Your task to perform on an android device: Go to Maps Image 0: 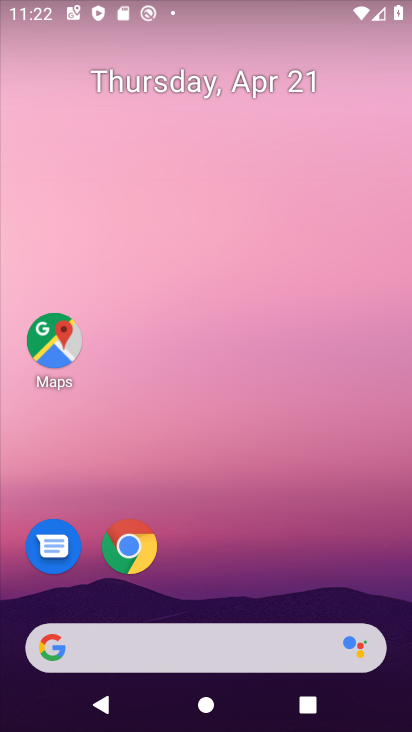
Step 0: click (54, 347)
Your task to perform on an android device: Go to Maps Image 1: 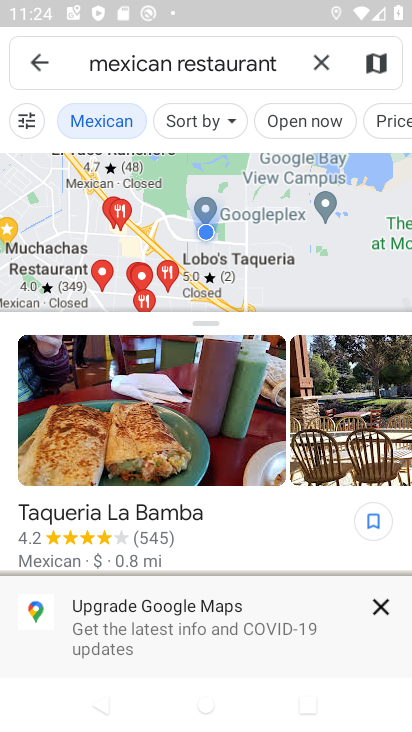
Step 1: task complete